Your task to perform on an android device: turn off notifications settings in the gmail app Image 0: 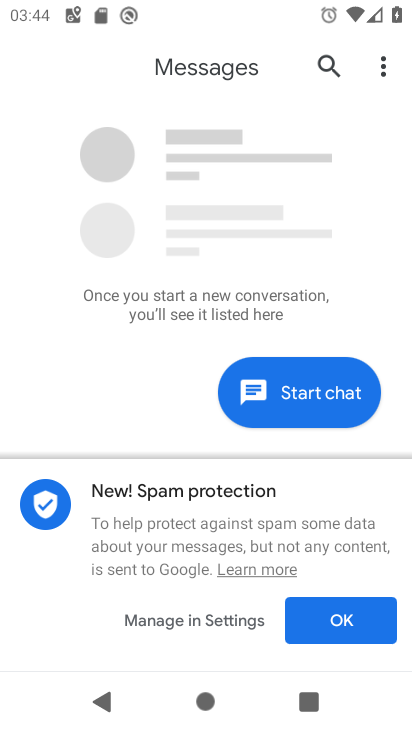
Step 0: press home button
Your task to perform on an android device: turn off notifications settings in the gmail app Image 1: 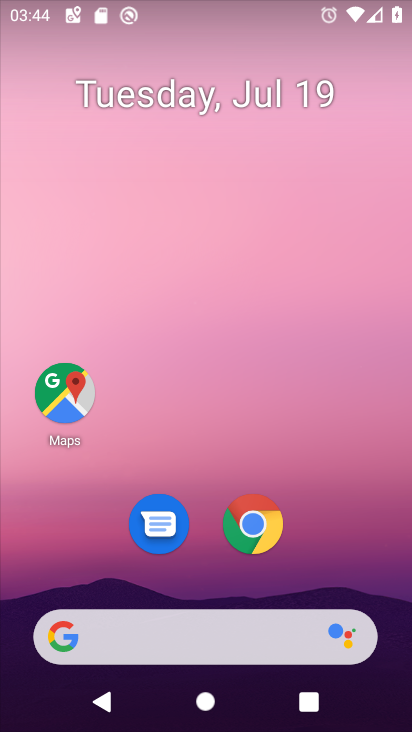
Step 1: drag from (347, 520) to (311, 106)
Your task to perform on an android device: turn off notifications settings in the gmail app Image 2: 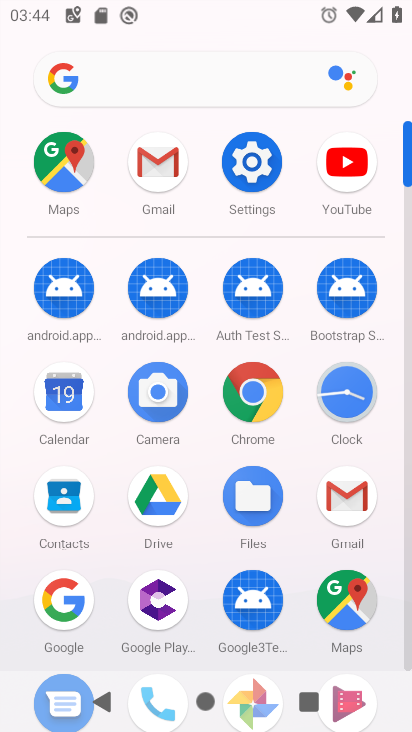
Step 2: click (166, 165)
Your task to perform on an android device: turn off notifications settings in the gmail app Image 3: 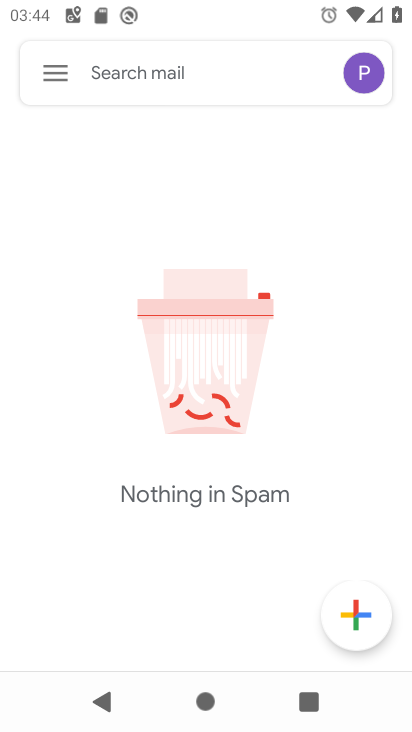
Step 3: click (58, 66)
Your task to perform on an android device: turn off notifications settings in the gmail app Image 4: 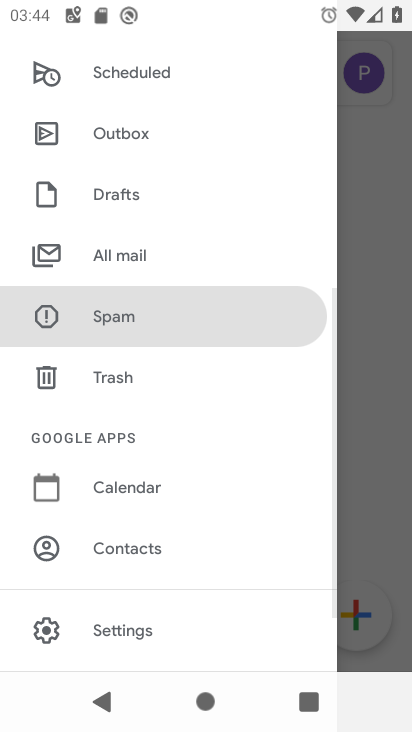
Step 4: click (120, 620)
Your task to perform on an android device: turn off notifications settings in the gmail app Image 5: 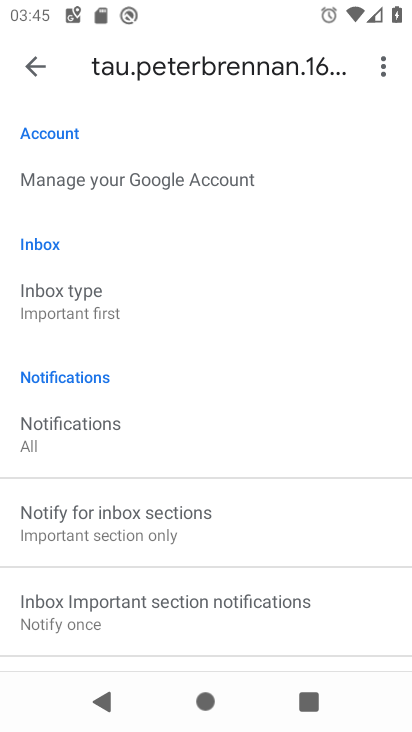
Step 5: drag from (226, 402) to (245, 140)
Your task to perform on an android device: turn off notifications settings in the gmail app Image 6: 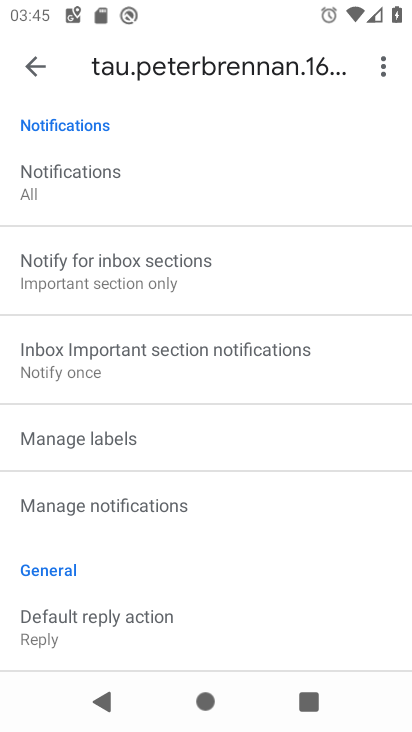
Step 6: click (187, 493)
Your task to perform on an android device: turn off notifications settings in the gmail app Image 7: 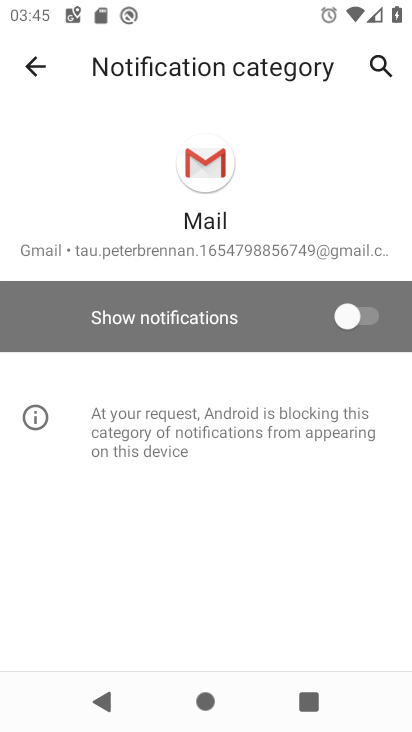
Step 7: task complete